Your task to perform on an android device: Go to ESPN.com Image 0: 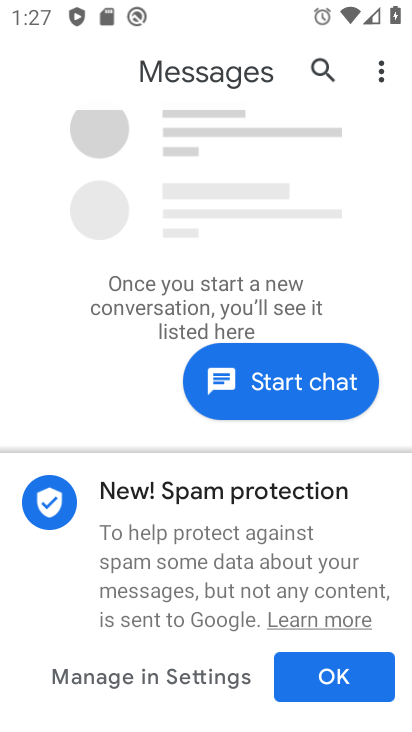
Step 0: press home button
Your task to perform on an android device: Go to ESPN.com Image 1: 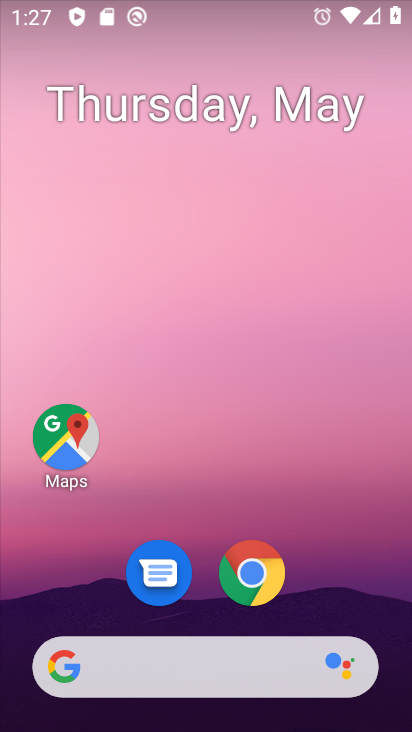
Step 1: click (249, 566)
Your task to perform on an android device: Go to ESPN.com Image 2: 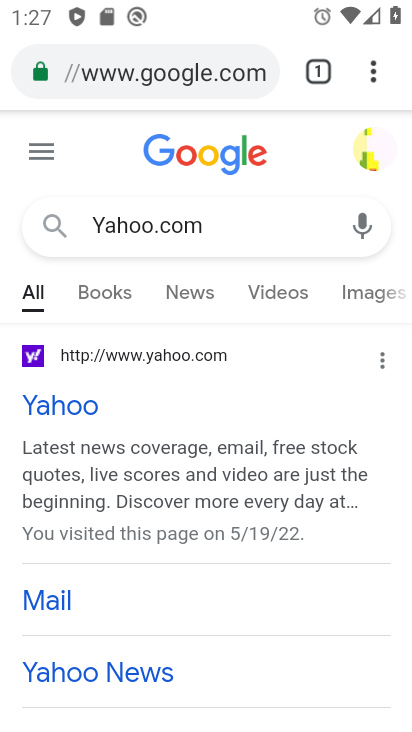
Step 2: click (263, 72)
Your task to perform on an android device: Go to ESPN.com Image 3: 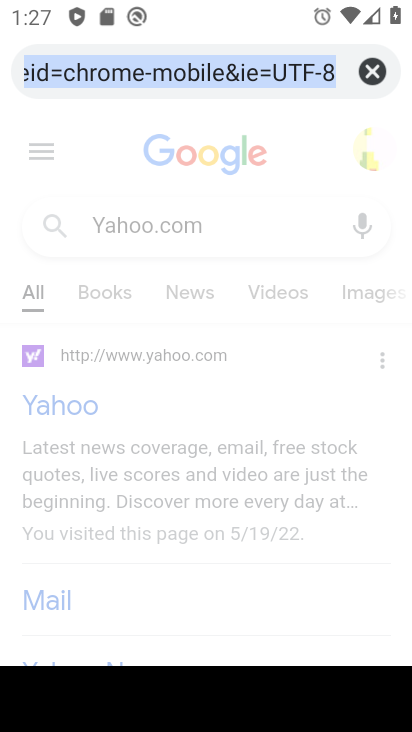
Step 3: click (379, 63)
Your task to perform on an android device: Go to ESPN.com Image 4: 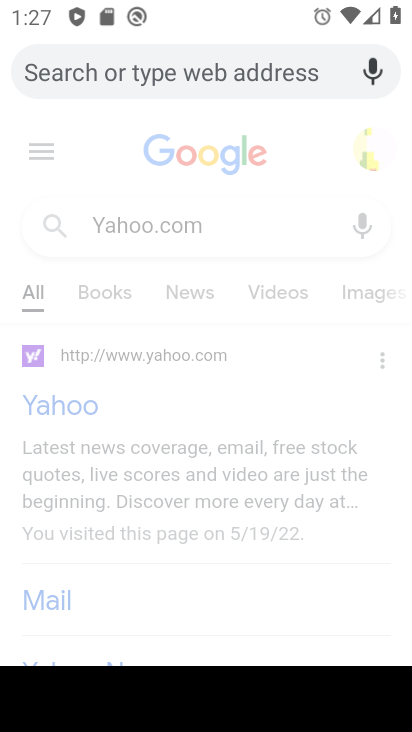
Step 4: type "ESPN.com"
Your task to perform on an android device: Go to ESPN.com Image 5: 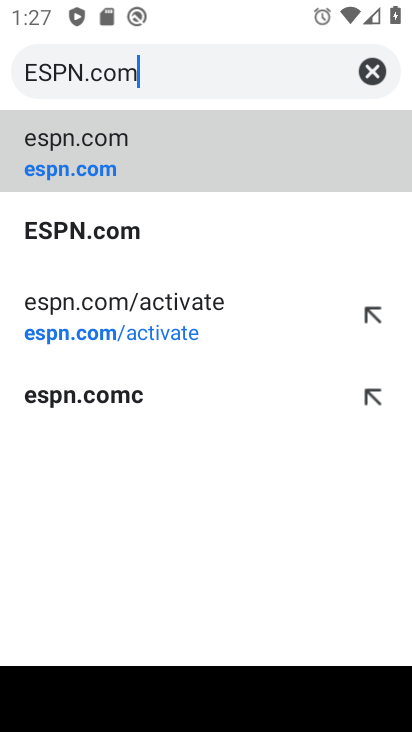
Step 5: click (46, 227)
Your task to perform on an android device: Go to ESPN.com Image 6: 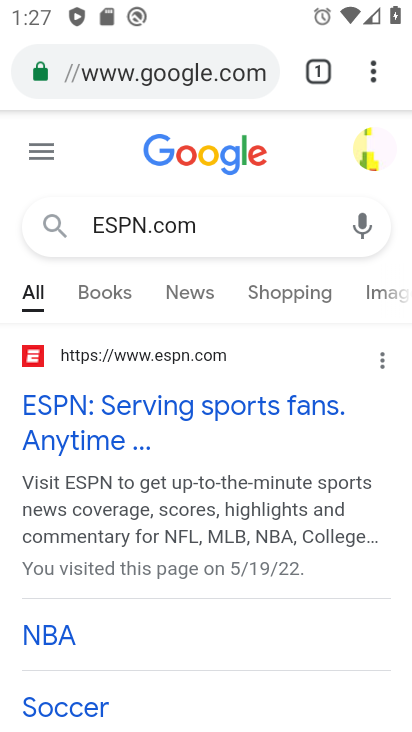
Step 6: task complete